Your task to perform on an android device: Open Yahoo.com Image 0: 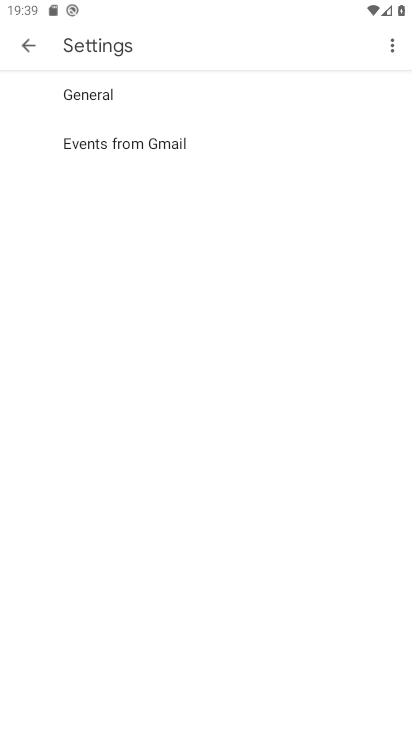
Step 0: press home button
Your task to perform on an android device: Open Yahoo.com Image 1: 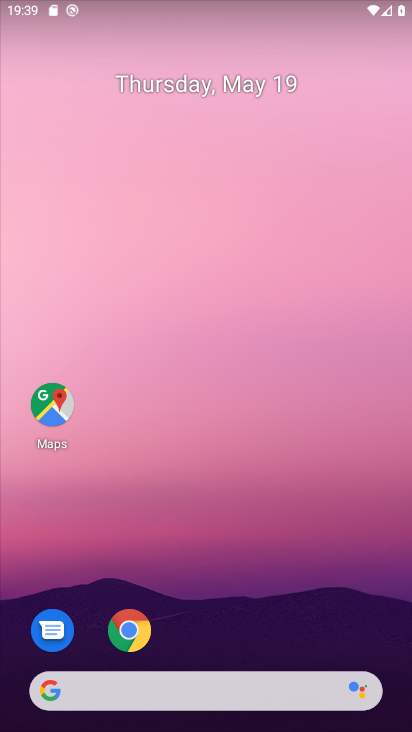
Step 1: click (118, 631)
Your task to perform on an android device: Open Yahoo.com Image 2: 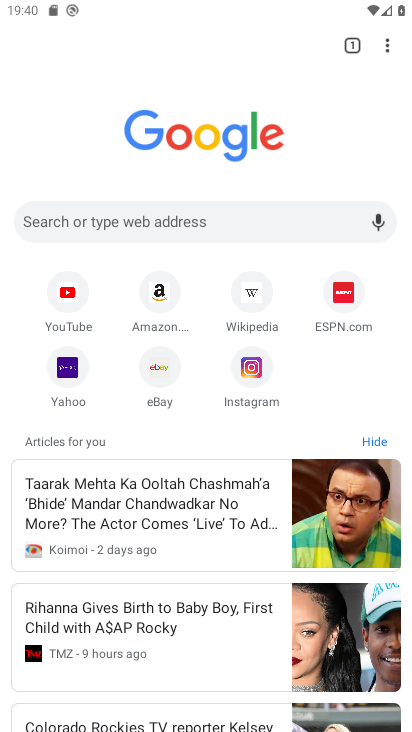
Step 2: click (68, 365)
Your task to perform on an android device: Open Yahoo.com Image 3: 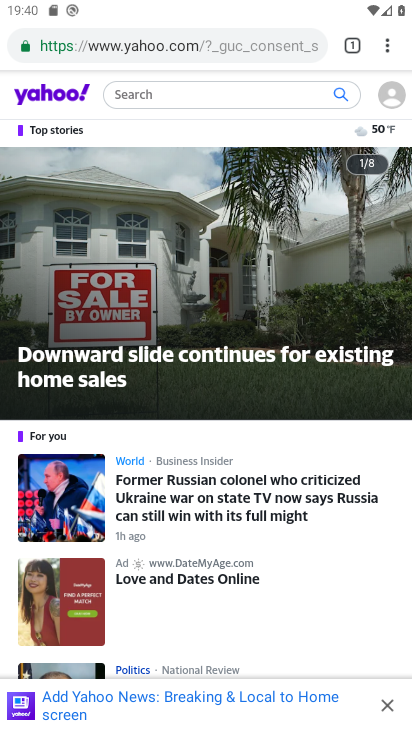
Step 3: task complete